Your task to perform on an android device: Open Yahoo.com Image 0: 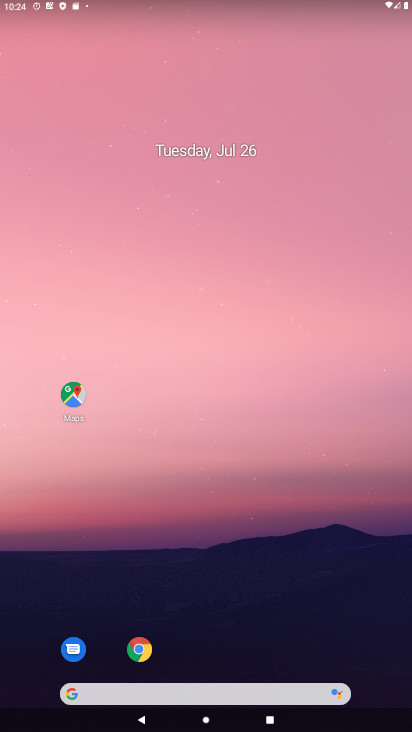
Step 0: click (204, 137)
Your task to perform on an android device: Open Yahoo.com Image 1: 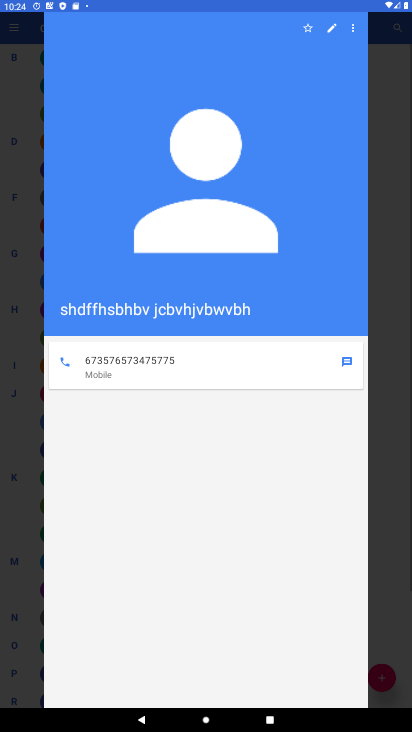
Step 1: drag from (178, 636) to (307, 67)
Your task to perform on an android device: Open Yahoo.com Image 2: 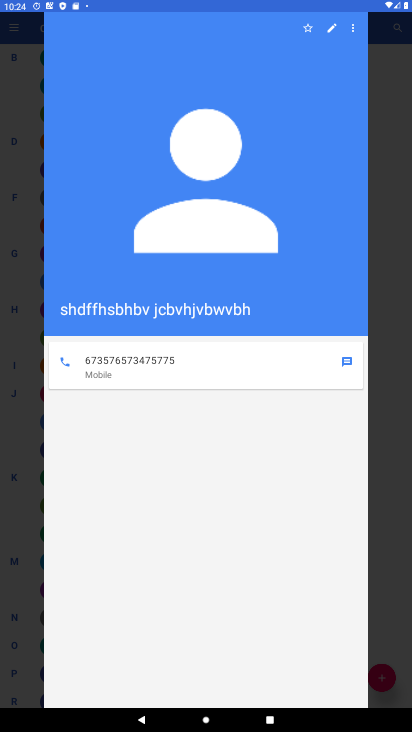
Step 2: press home button
Your task to perform on an android device: Open Yahoo.com Image 3: 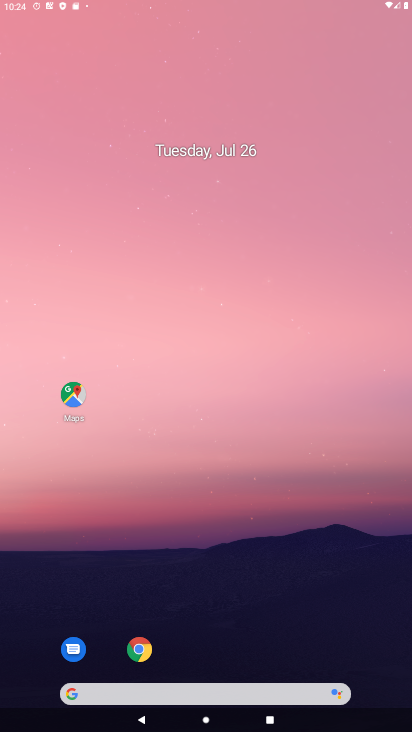
Step 3: drag from (151, 626) to (268, 185)
Your task to perform on an android device: Open Yahoo.com Image 4: 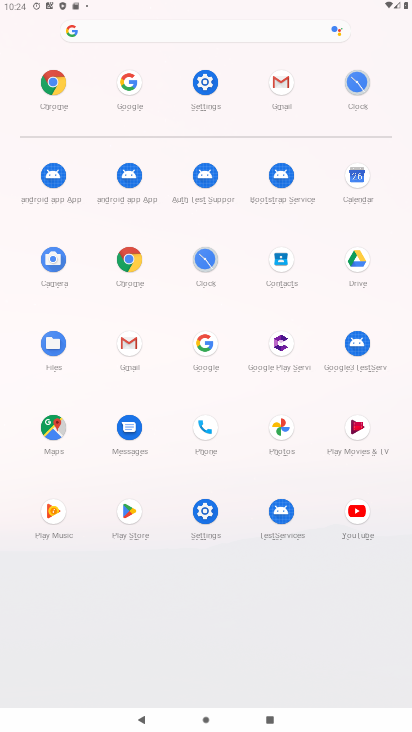
Step 4: click (156, 33)
Your task to perform on an android device: Open Yahoo.com Image 5: 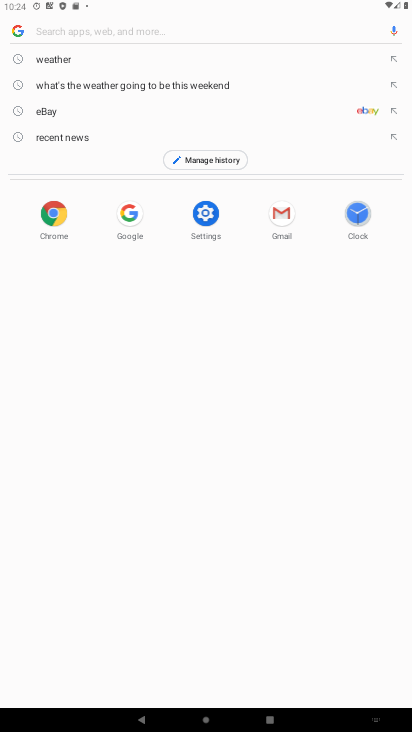
Step 5: type "Yahoo.com"
Your task to perform on an android device: Open Yahoo.com Image 6: 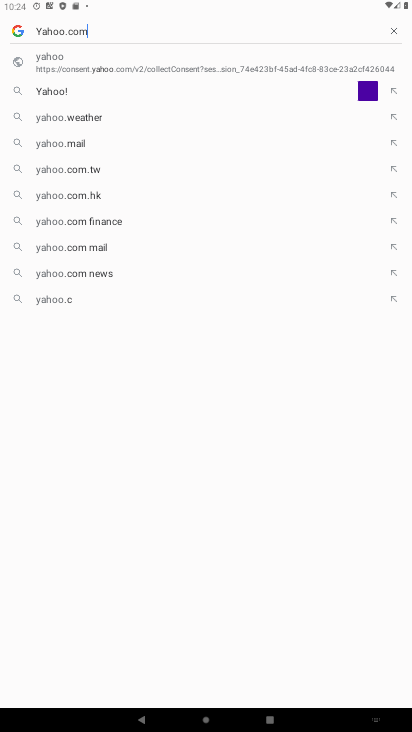
Step 6: type ""
Your task to perform on an android device: Open Yahoo.com Image 7: 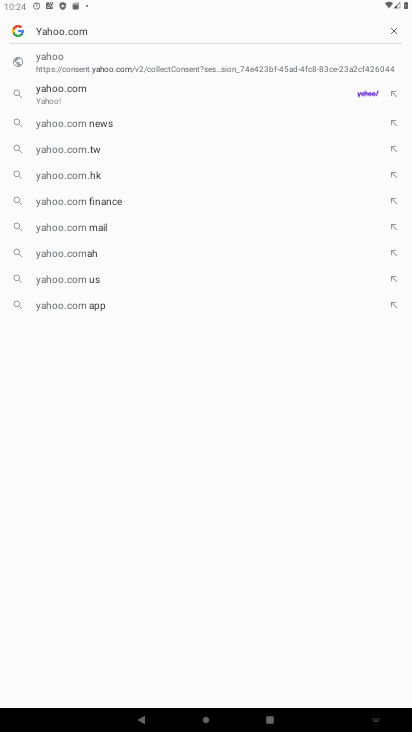
Step 7: click (77, 93)
Your task to perform on an android device: Open Yahoo.com Image 8: 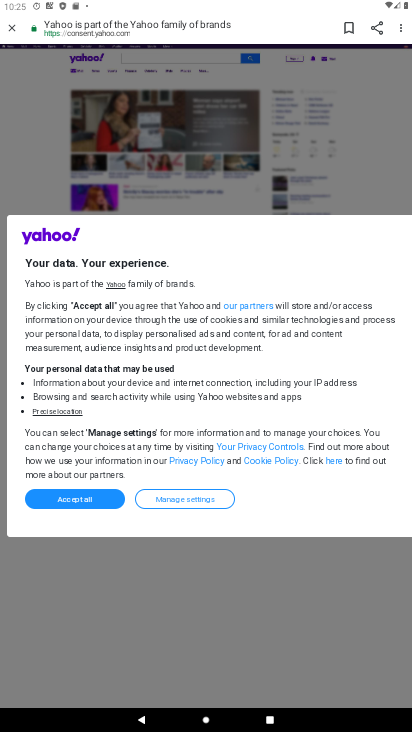
Step 8: task complete